Your task to perform on an android device: Show me productivity apps on the Play Store Image 0: 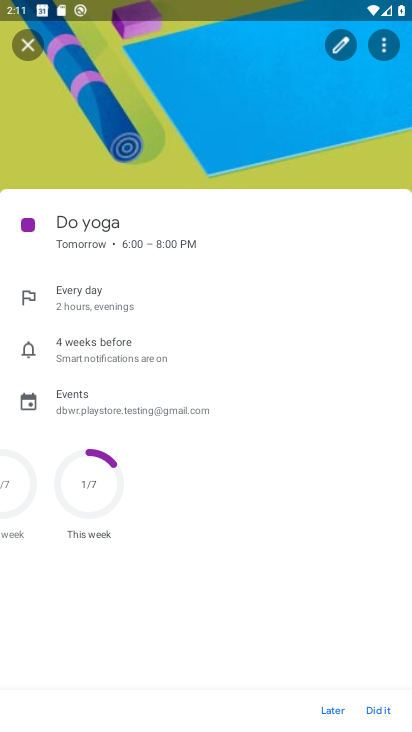
Step 0: press home button
Your task to perform on an android device: Show me productivity apps on the Play Store Image 1: 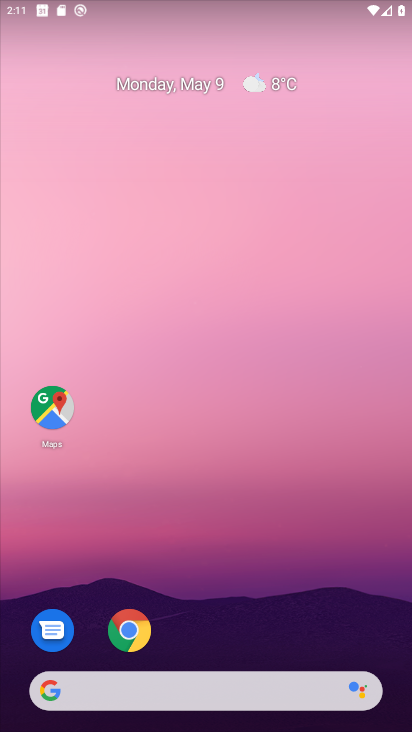
Step 1: drag from (187, 609) to (257, 139)
Your task to perform on an android device: Show me productivity apps on the Play Store Image 2: 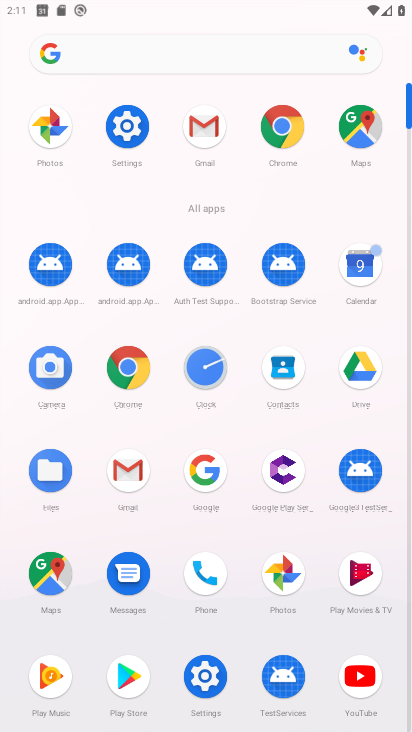
Step 2: click (133, 674)
Your task to perform on an android device: Show me productivity apps on the Play Store Image 3: 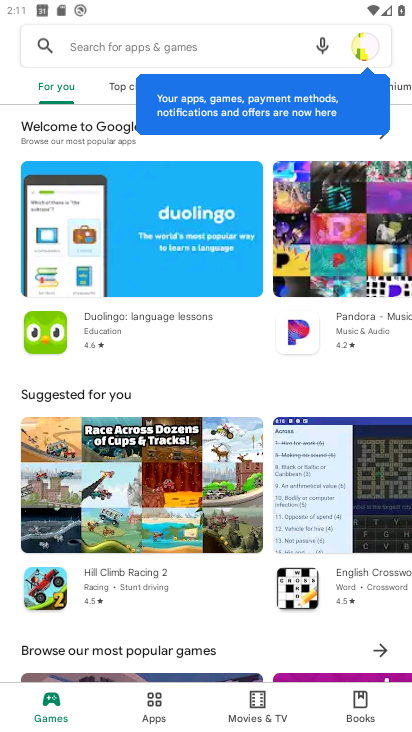
Step 3: click (164, 701)
Your task to perform on an android device: Show me productivity apps on the Play Store Image 4: 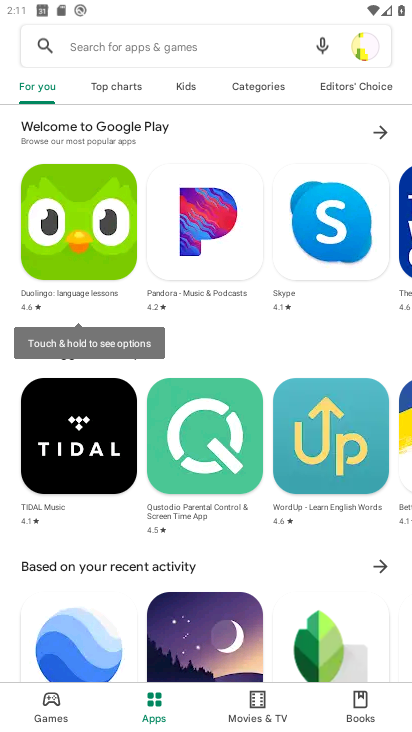
Step 4: click (275, 90)
Your task to perform on an android device: Show me productivity apps on the Play Store Image 5: 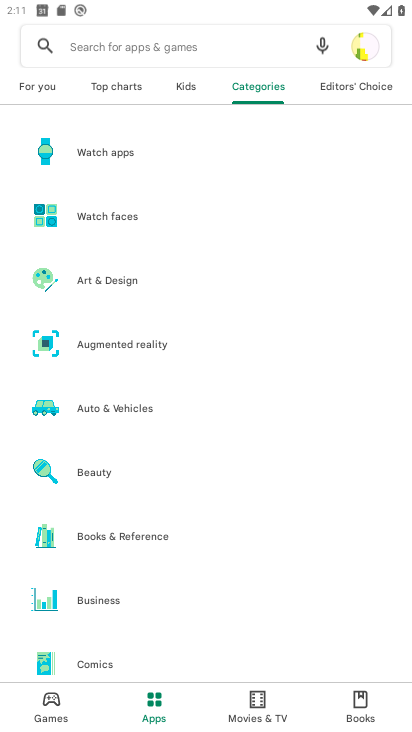
Step 5: drag from (153, 532) to (179, 246)
Your task to perform on an android device: Show me productivity apps on the Play Store Image 6: 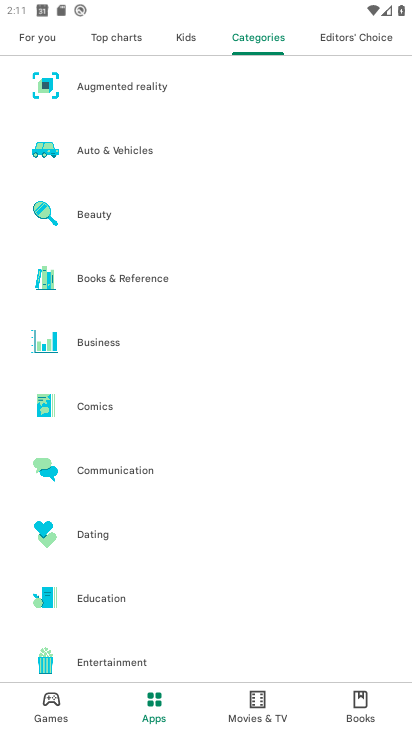
Step 6: drag from (129, 531) to (129, 220)
Your task to perform on an android device: Show me productivity apps on the Play Store Image 7: 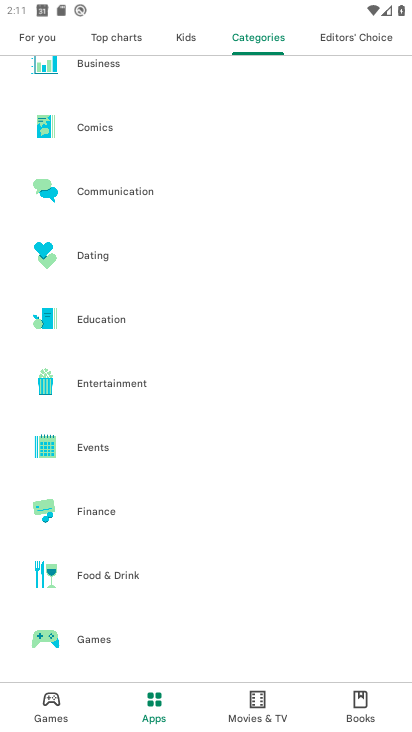
Step 7: drag from (93, 532) to (109, 338)
Your task to perform on an android device: Show me productivity apps on the Play Store Image 8: 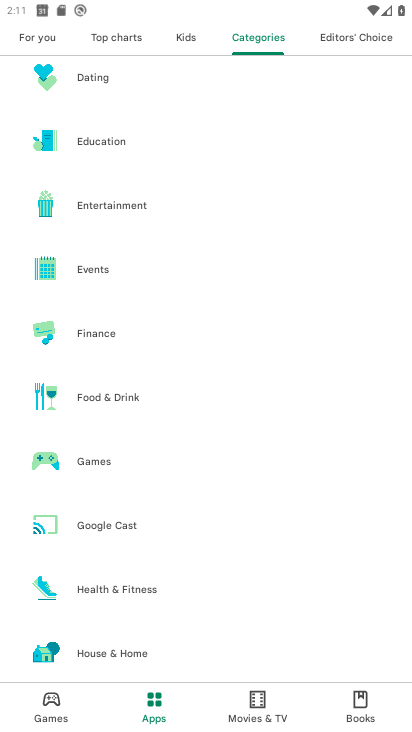
Step 8: drag from (128, 400) to (159, 256)
Your task to perform on an android device: Show me productivity apps on the Play Store Image 9: 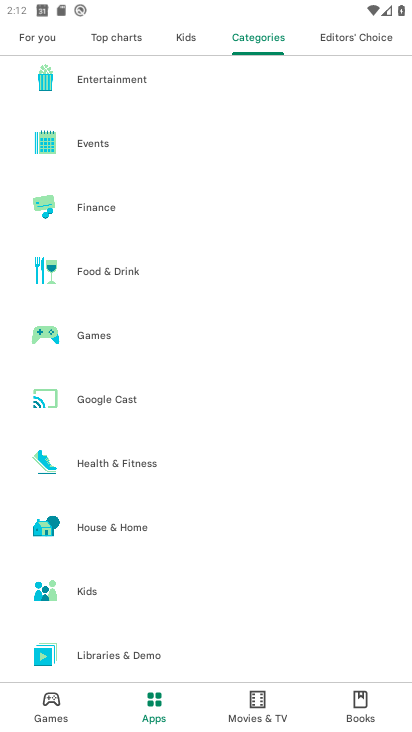
Step 9: drag from (131, 555) to (160, 312)
Your task to perform on an android device: Show me productivity apps on the Play Store Image 10: 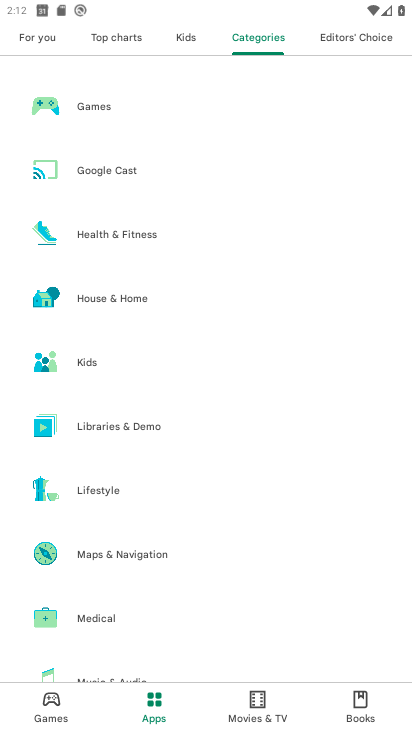
Step 10: drag from (163, 557) to (173, 232)
Your task to perform on an android device: Show me productivity apps on the Play Store Image 11: 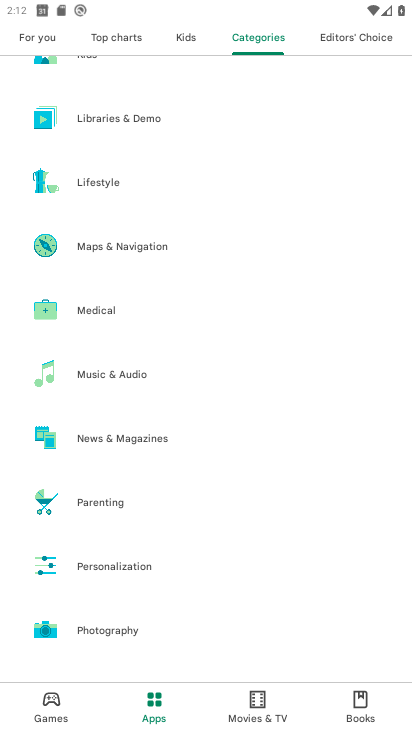
Step 11: drag from (145, 533) to (171, 375)
Your task to perform on an android device: Show me productivity apps on the Play Store Image 12: 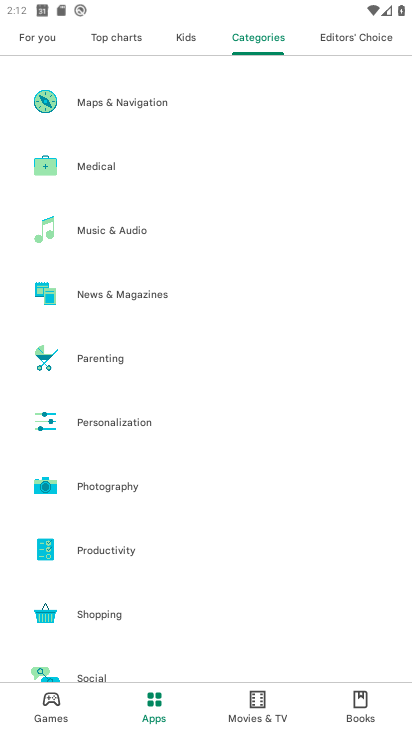
Step 12: click (143, 555)
Your task to perform on an android device: Show me productivity apps on the Play Store Image 13: 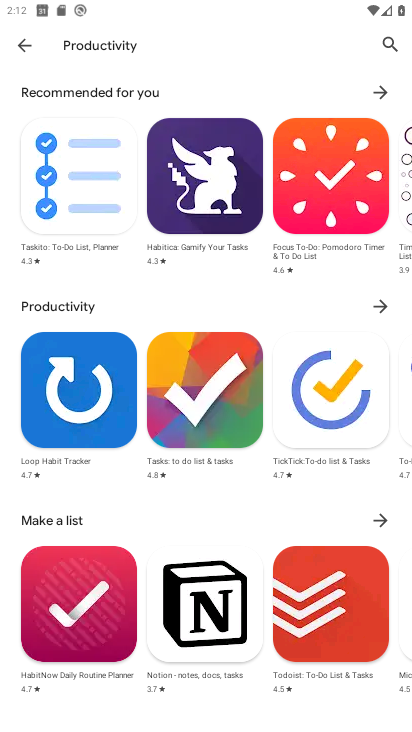
Step 13: task complete